Your task to perform on an android device: Open sound settings Image 0: 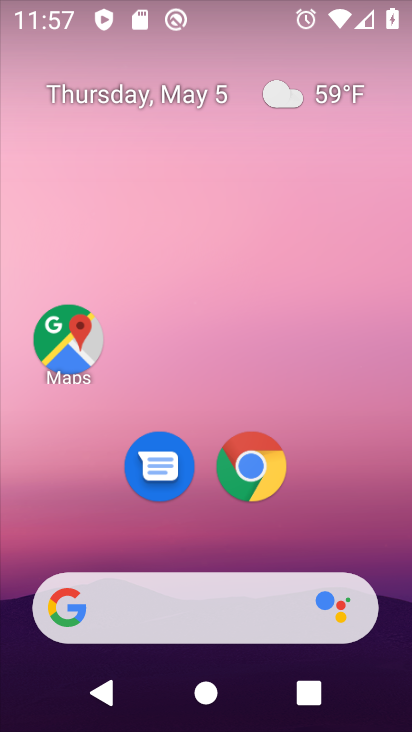
Step 0: drag from (186, 548) to (211, 165)
Your task to perform on an android device: Open sound settings Image 1: 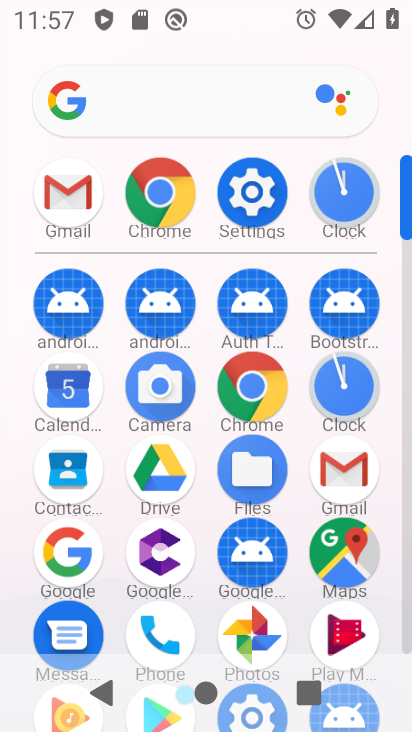
Step 1: click (256, 189)
Your task to perform on an android device: Open sound settings Image 2: 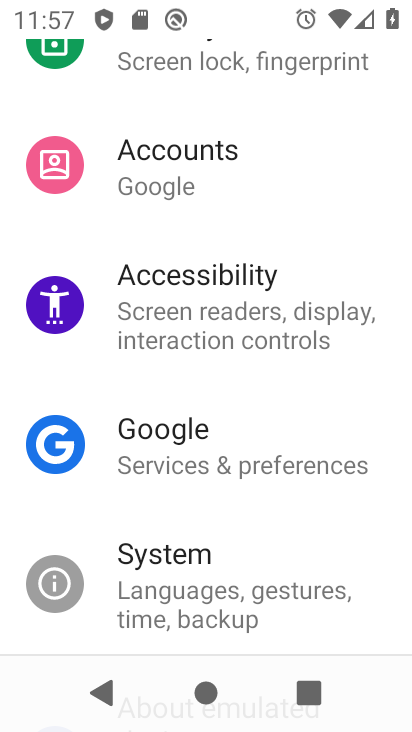
Step 2: drag from (244, 542) to (270, 273)
Your task to perform on an android device: Open sound settings Image 3: 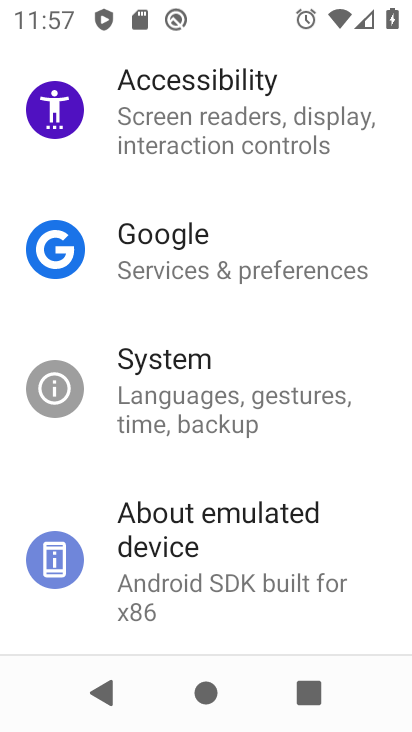
Step 3: drag from (252, 635) to (286, 355)
Your task to perform on an android device: Open sound settings Image 4: 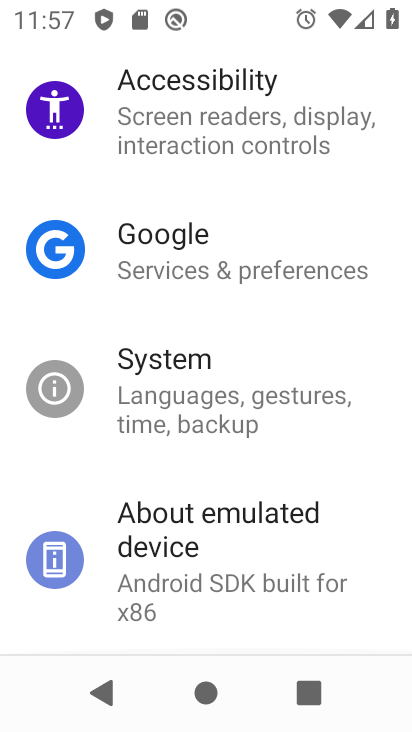
Step 4: drag from (256, 218) to (293, 536)
Your task to perform on an android device: Open sound settings Image 5: 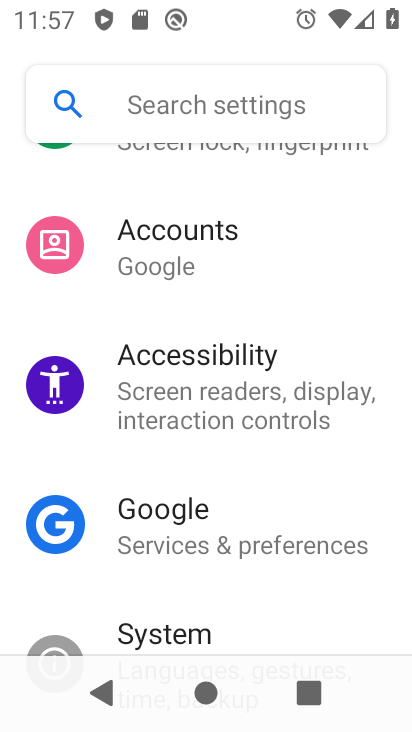
Step 5: drag from (257, 220) to (294, 539)
Your task to perform on an android device: Open sound settings Image 6: 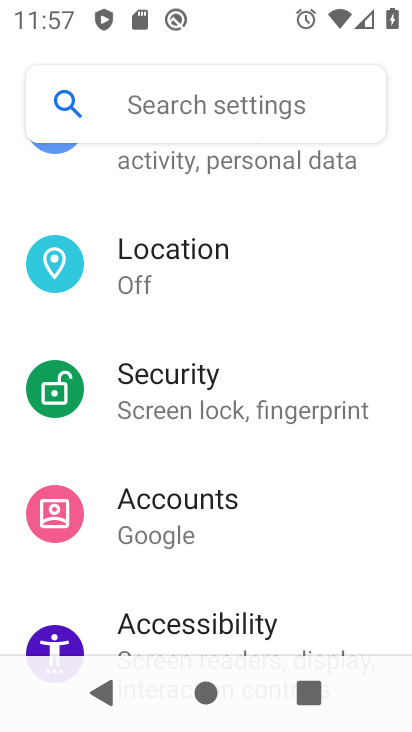
Step 6: drag from (269, 265) to (281, 582)
Your task to perform on an android device: Open sound settings Image 7: 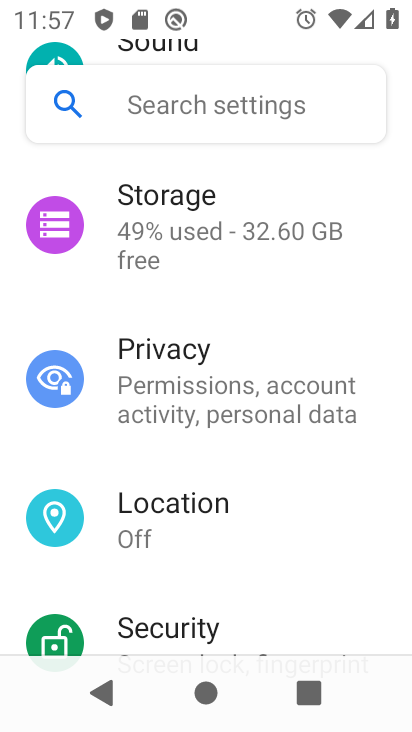
Step 7: drag from (272, 211) to (278, 507)
Your task to perform on an android device: Open sound settings Image 8: 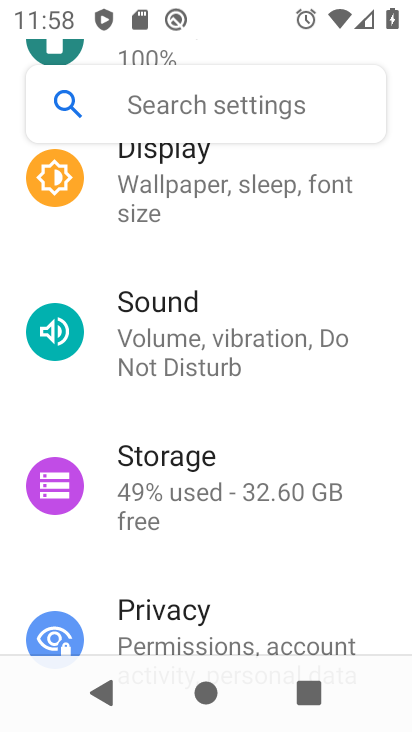
Step 8: click (245, 334)
Your task to perform on an android device: Open sound settings Image 9: 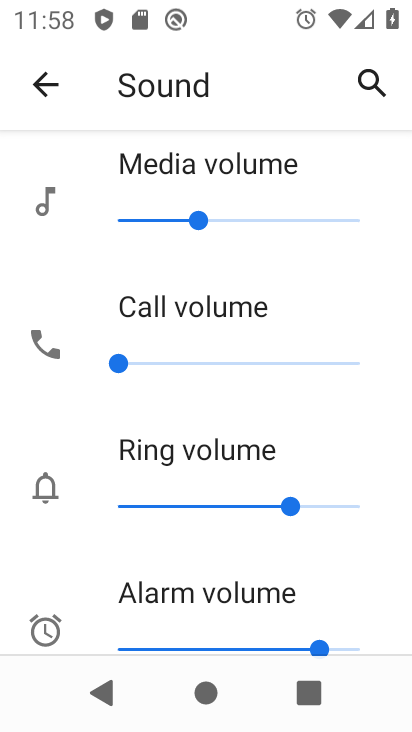
Step 9: task complete